Your task to perform on an android device: check out phone information Image 0: 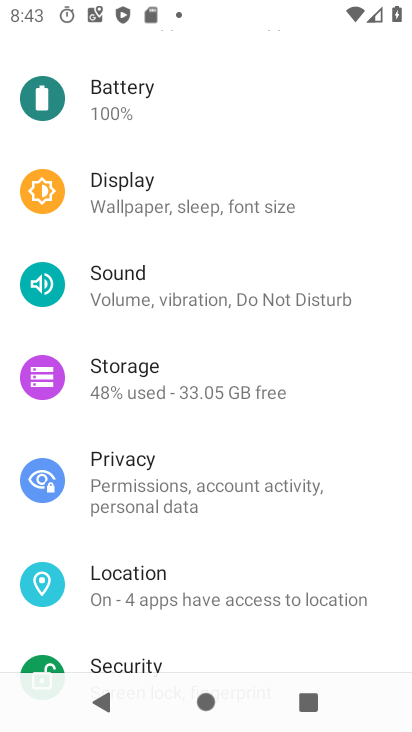
Step 0: drag from (165, 580) to (169, 114)
Your task to perform on an android device: check out phone information Image 1: 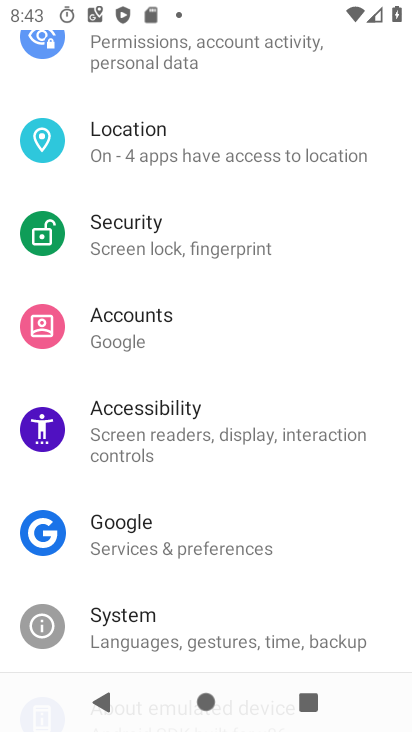
Step 1: task complete